Your task to perform on an android device: Open settings on Google Maps Image 0: 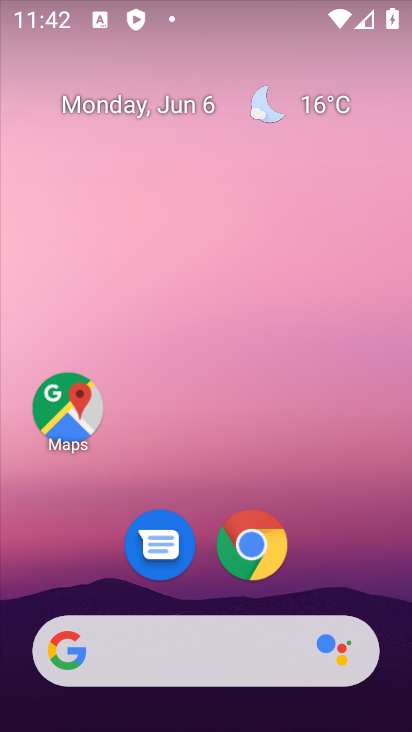
Step 0: click (59, 435)
Your task to perform on an android device: Open settings on Google Maps Image 1: 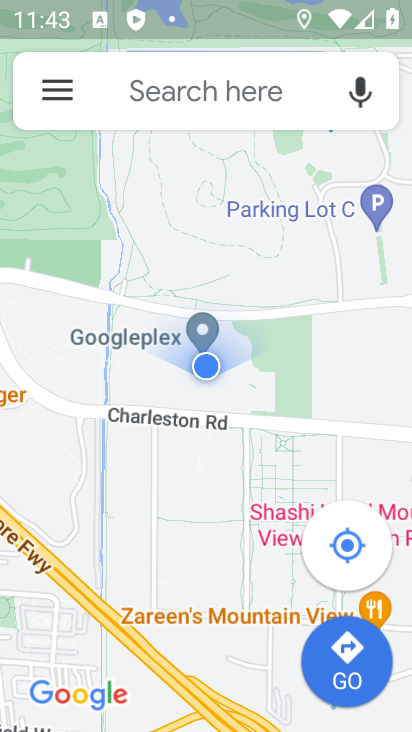
Step 1: click (47, 100)
Your task to perform on an android device: Open settings on Google Maps Image 2: 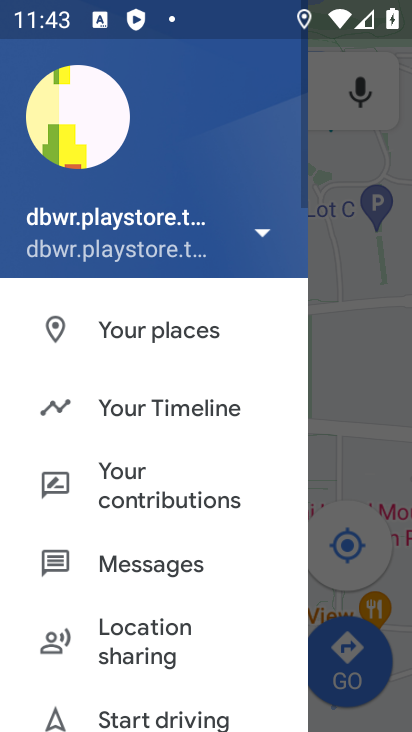
Step 2: drag from (155, 535) to (61, 298)
Your task to perform on an android device: Open settings on Google Maps Image 3: 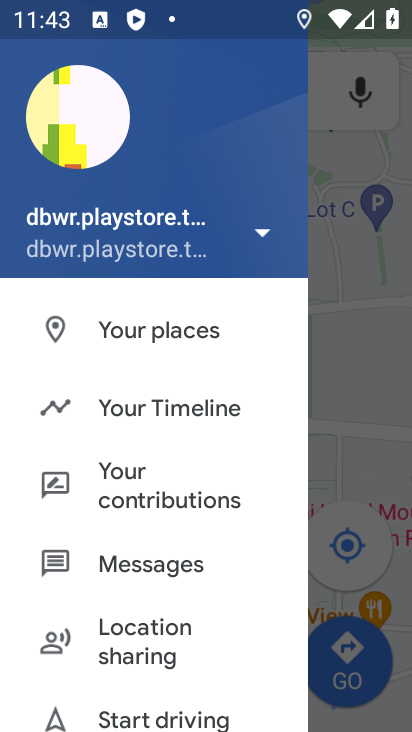
Step 3: click (105, 566)
Your task to perform on an android device: Open settings on Google Maps Image 4: 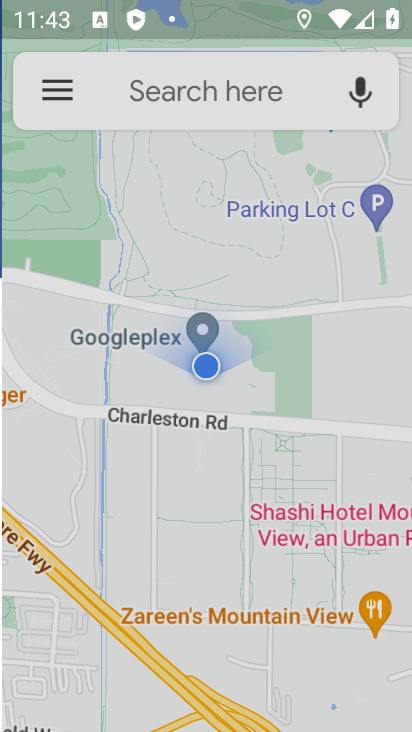
Step 4: drag from (122, 480) to (157, 300)
Your task to perform on an android device: Open settings on Google Maps Image 5: 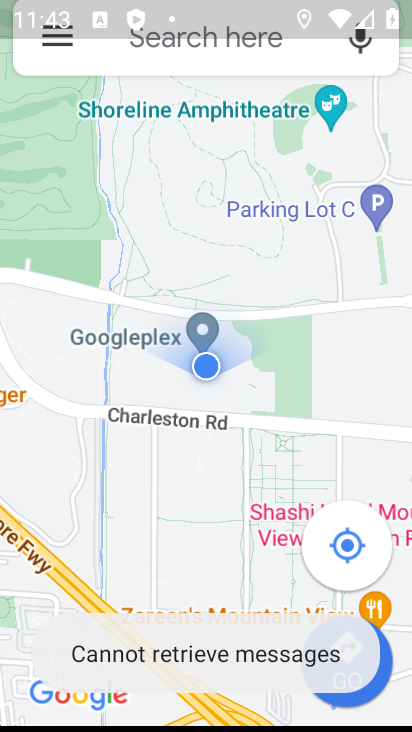
Step 5: click (33, 74)
Your task to perform on an android device: Open settings on Google Maps Image 6: 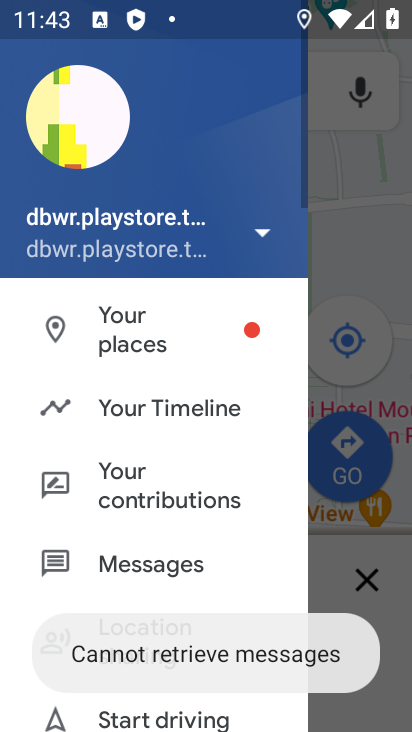
Step 6: click (51, 86)
Your task to perform on an android device: Open settings on Google Maps Image 7: 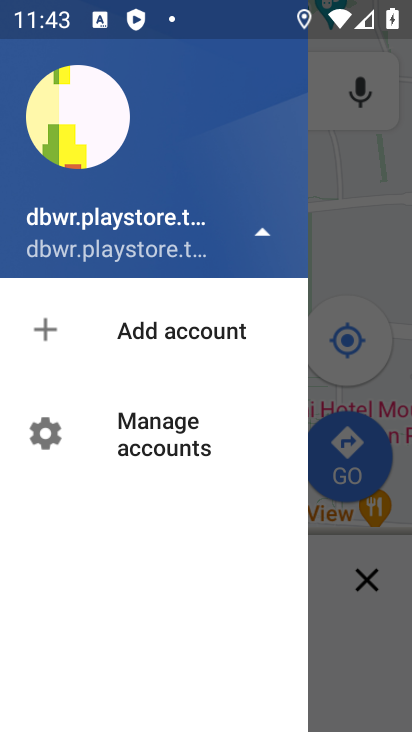
Step 7: click (354, 196)
Your task to perform on an android device: Open settings on Google Maps Image 8: 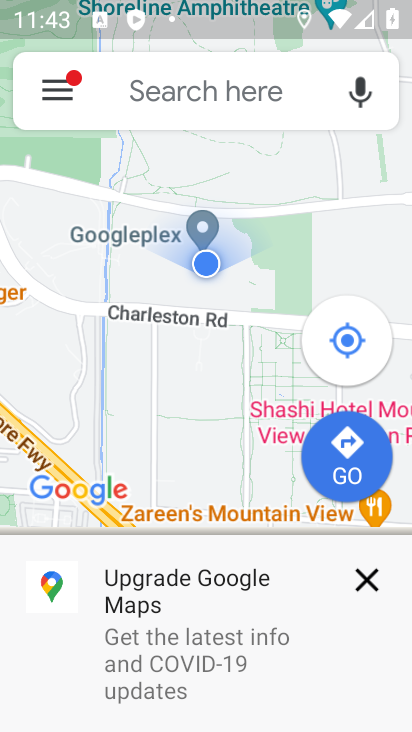
Step 8: click (60, 76)
Your task to perform on an android device: Open settings on Google Maps Image 9: 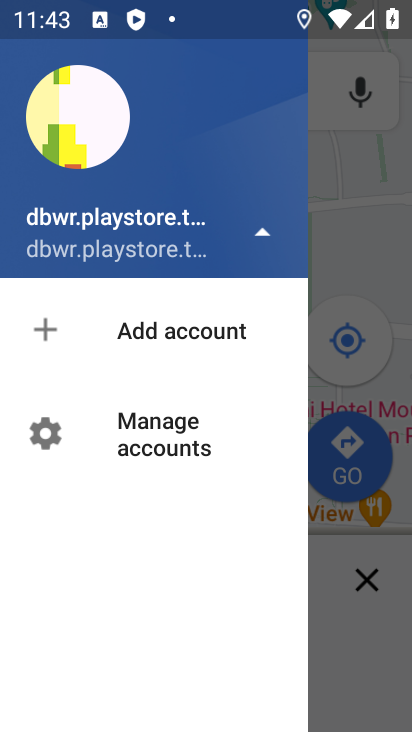
Step 9: click (170, 246)
Your task to perform on an android device: Open settings on Google Maps Image 10: 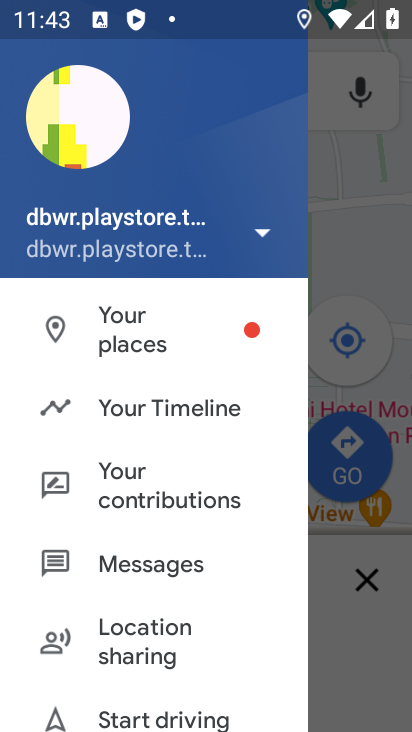
Step 10: drag from (108, 720) to (111, 368)
Your task to perform on an android device: Open settings on Google Maps Image 11: 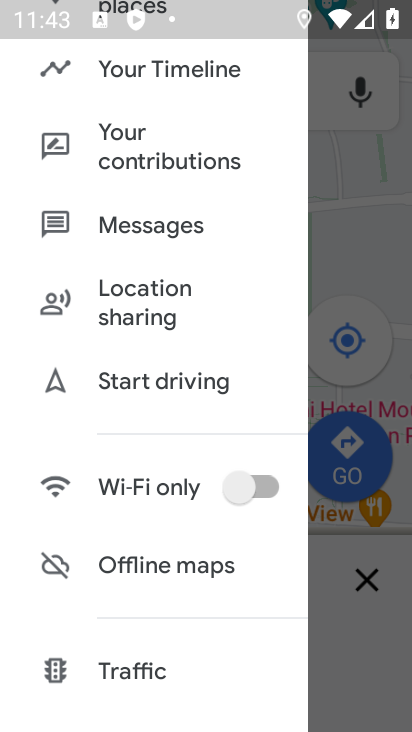
Step 11: drag from (83, 630) to (62, 141)
Your task to perform on an android device: Open settings on Google Maps Image 12: 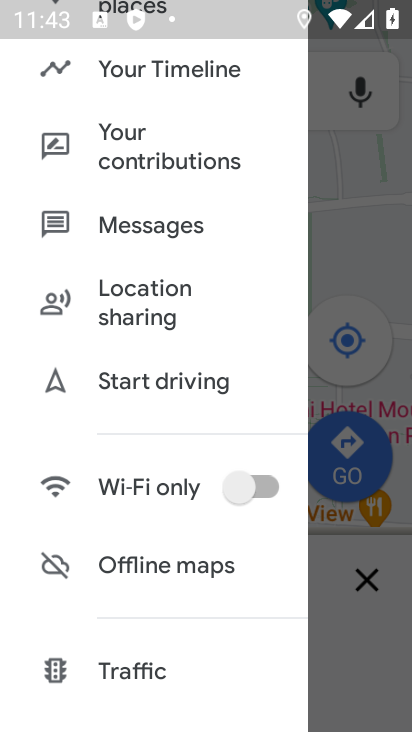
Step 12: drag from (150, 597) to (224, 70)
Your task to perform on an android device: Open settings on Google Maps Image 13: 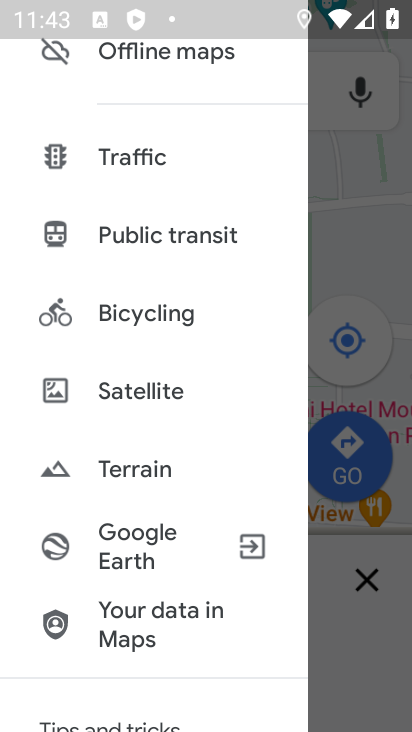
Step 13: drag from (165, 495) to (235, 119)
Your task to perform on an android device: Open settings on Google Maps Image 14: 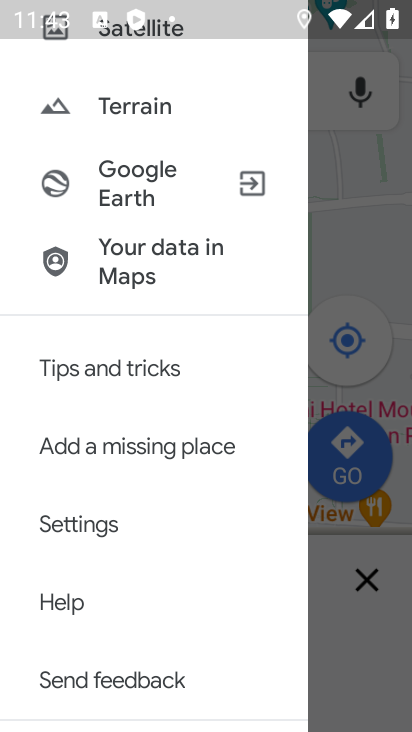
Step 14: click (94, 531)
Your task to perform on an android device: Open settings on Google Maps Image 15: 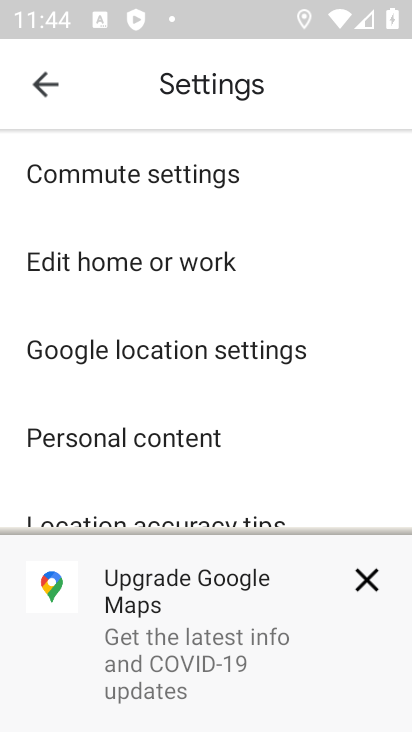
Step 15: click (376, 577)
Your task to perform on an android device: Open settings on Google Maps Image 16: 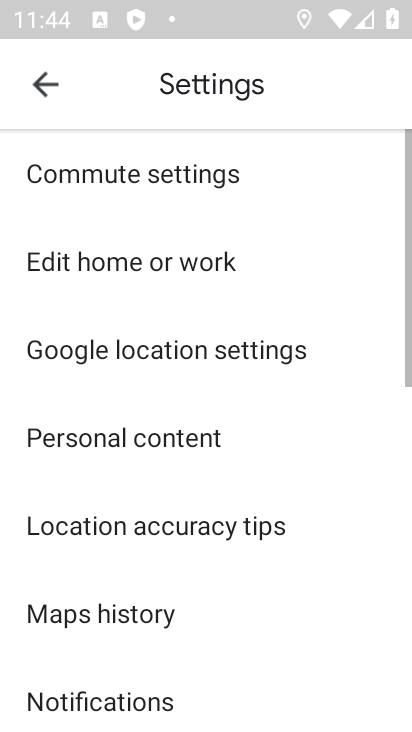
Step 16: task complete